Your task to perform on an android device: Open accessibility settings Image 0: 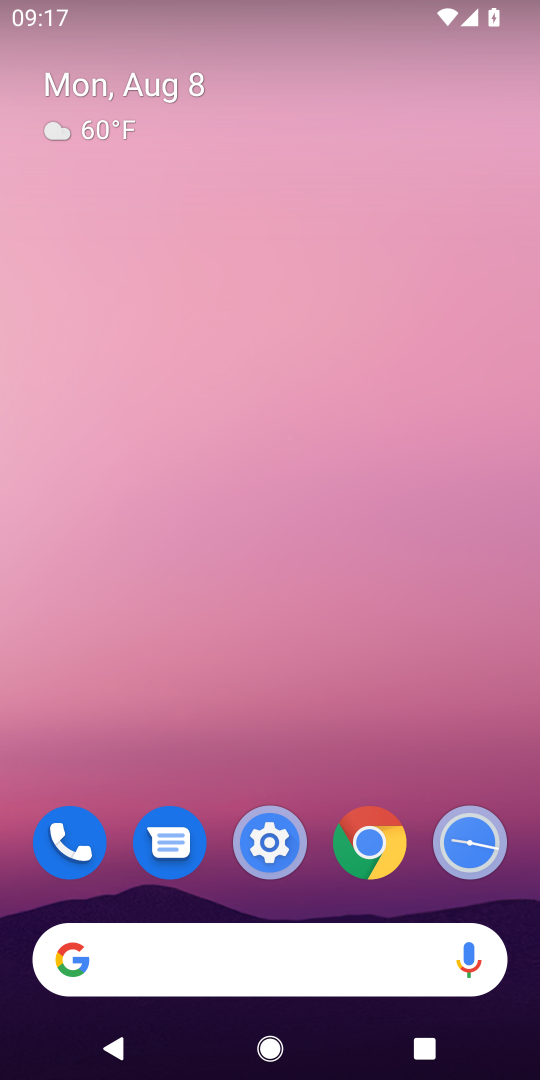
Step 0: click (260, 822)
Your task to perform on an android device: Open accessibility settings Image 1: 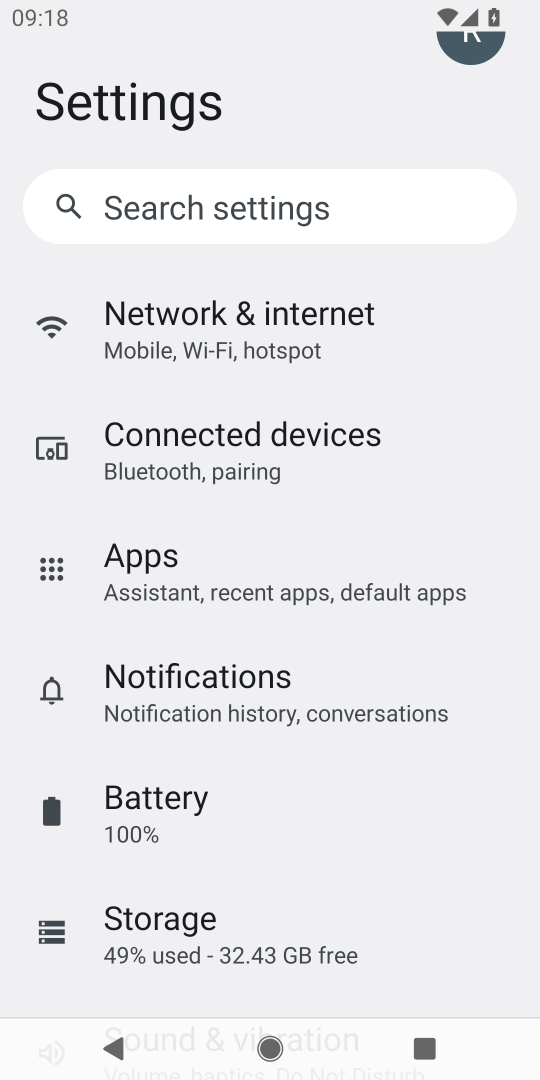
Step 1: drag from (227, 856) to (223, 356)
Your task to perform on an android device: Open accessibility settings Image 2: 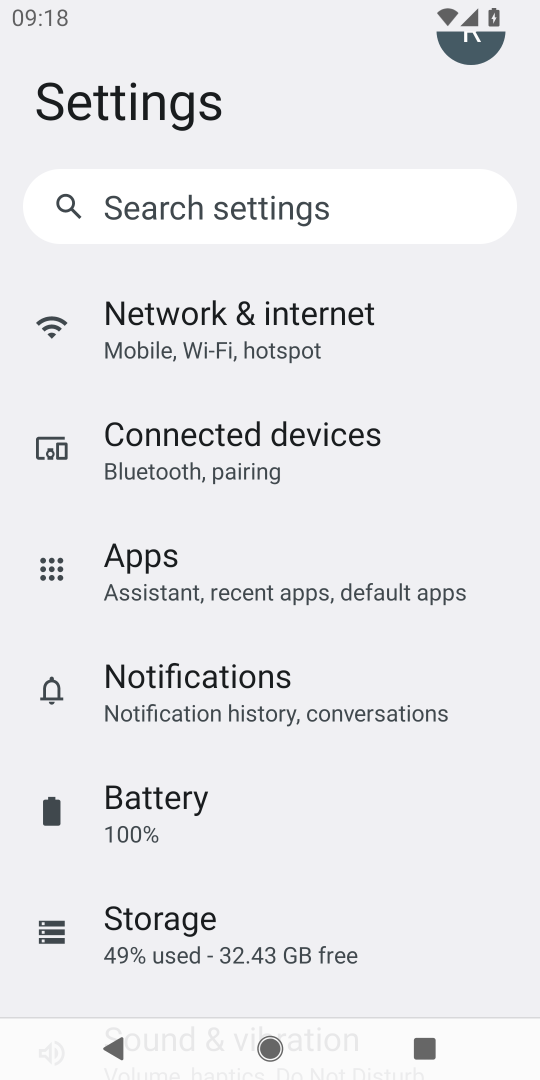
Step 2: drag from (254, 943) to (254, 484)
Your task to perform on an android device: Open accessibility settings Image 3: 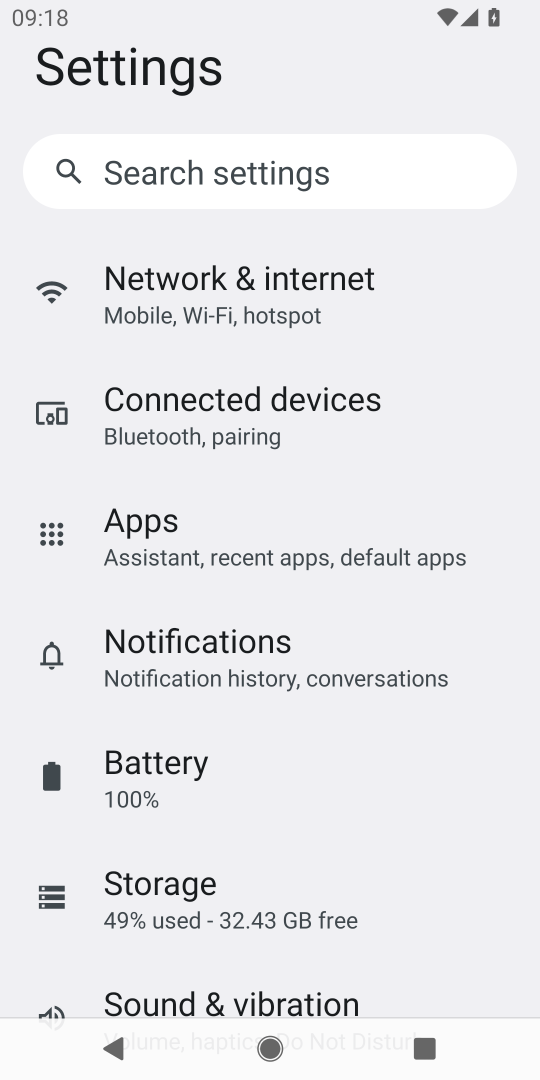
Step 3: drag from (310, 893) to (310, 427)
Your task to perform on an android device: Open accessibility settings Image 4: 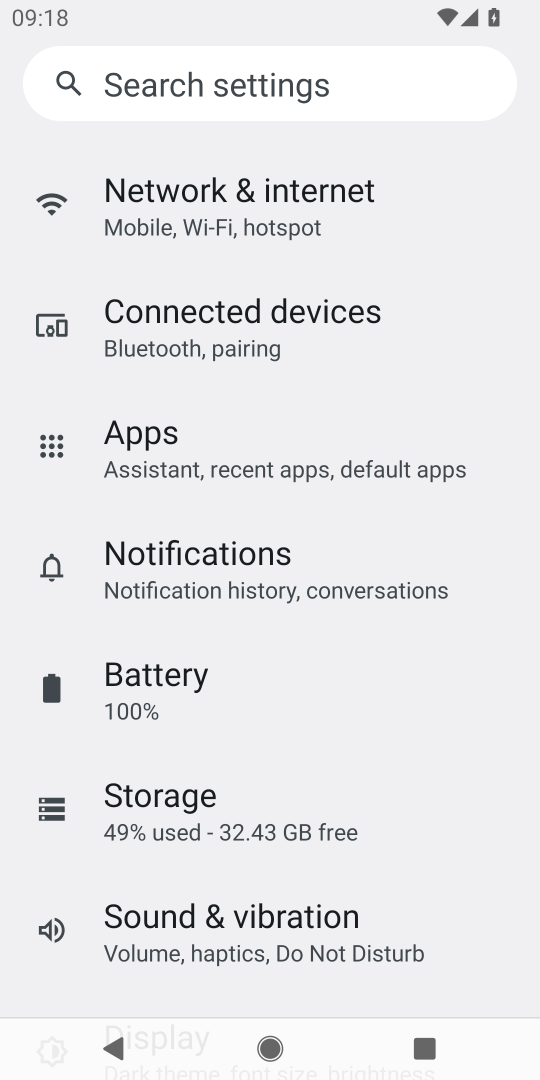
Step 4: drag from (308, 863) to (287, 408)
Your task to perform on an android device: Open accessibility settings Image 5: 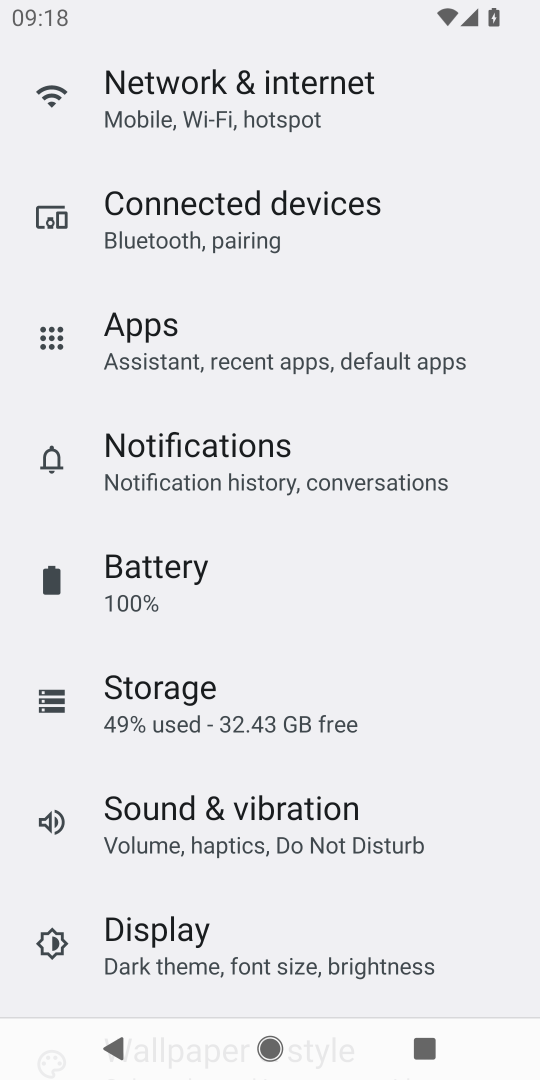
Step 5: drag from (277, 978) to (248, 579)
Your task to perform on an android device: Open accessibility settings Image 6: 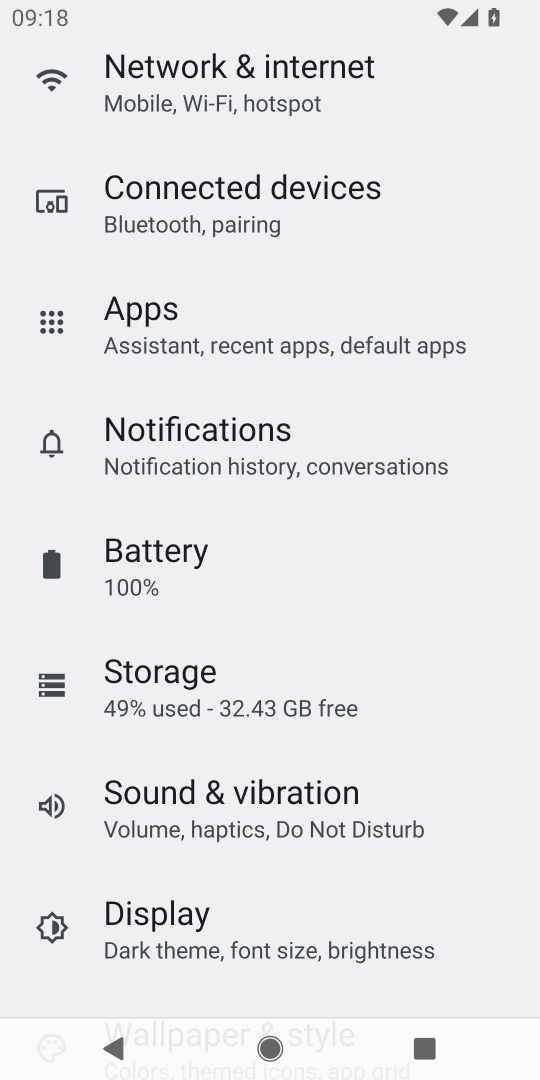
Step 6: drag from (237, 876) to (223, 56)
Your task to perform on an android device: Open accessibility settings Image 7: 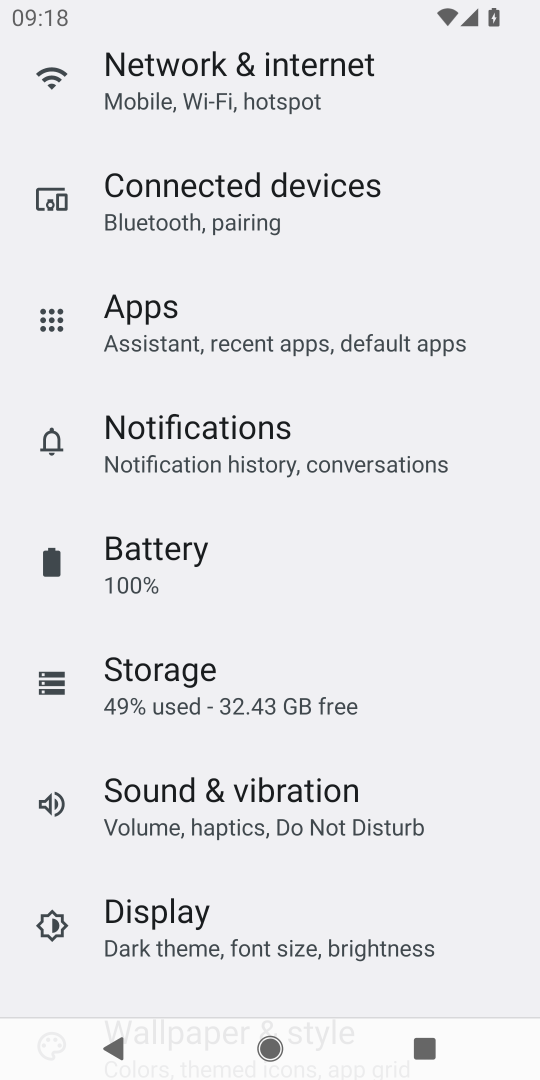
Step 7: drag from (194, 957) to (235, 64)
Your task to perform on an android device: Open accessibility settings Image 8: 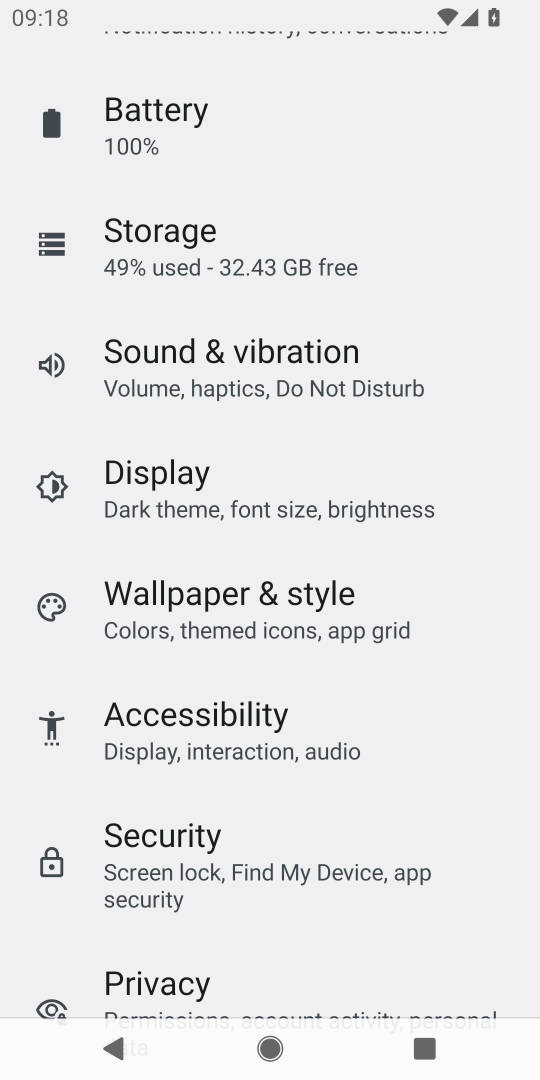
Step 8: click (247, 749)
Your task to perform on an android device: Open accessibility settings Image 9: 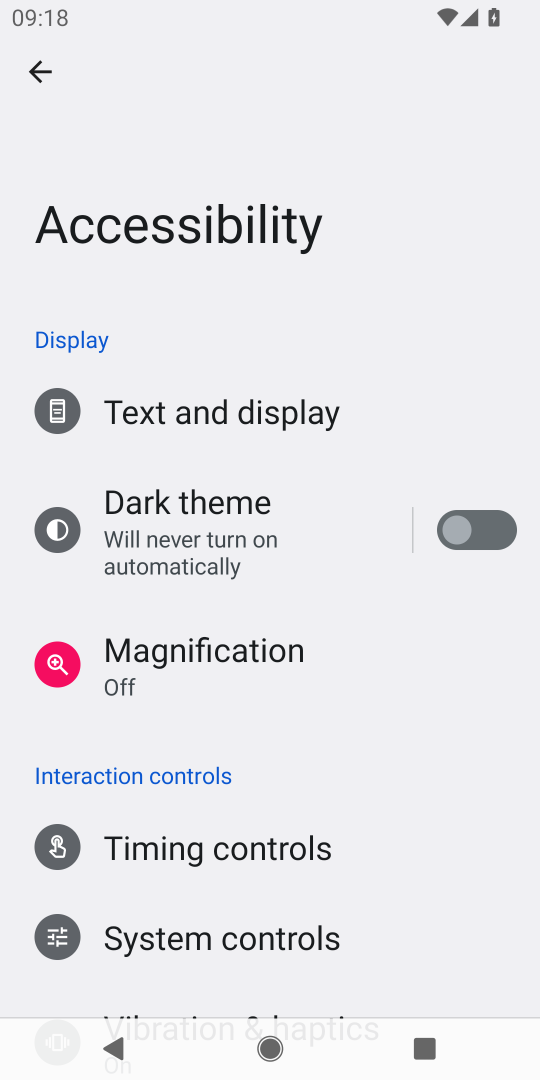
Step 9: task complete